Your task to perform on an android device: star an email in the gmail app Image 0: 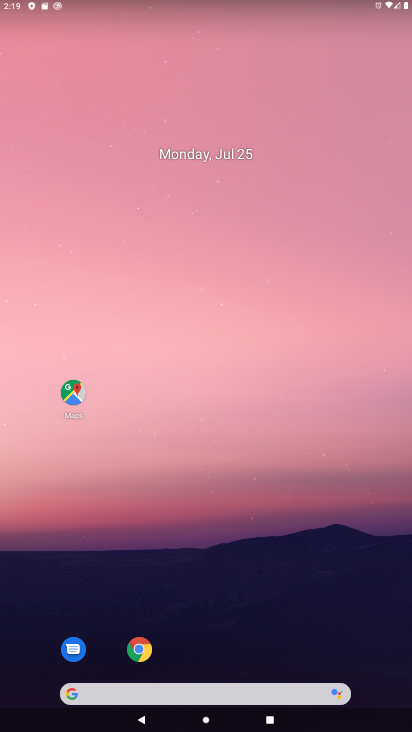
Step 0: drag from (386, 667) to (329, 239)
Your task to perform on an android device: star an email in the gmail app Image 1: 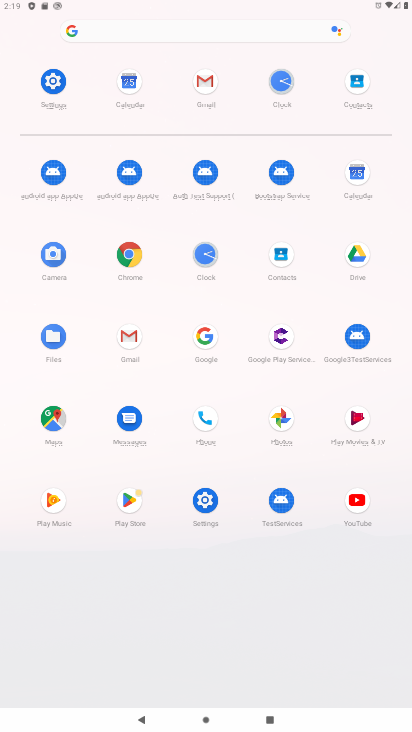
Step 1: click (129, 333)
Your task to perform on an android device: star an email in the gmail app Image 2: 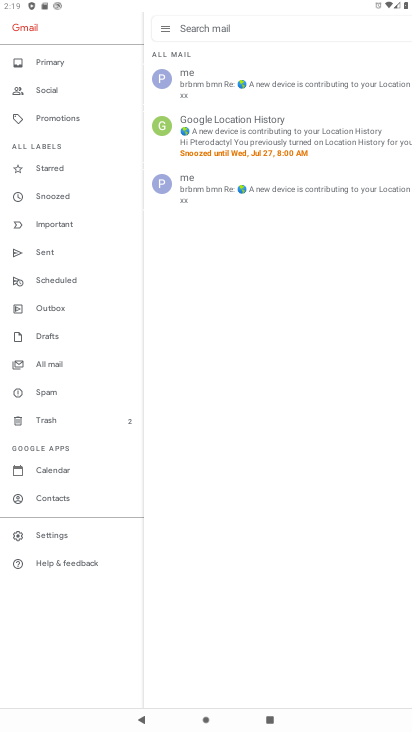
Step 2: click (315, 82)
Your task to perform on an android device: star an email in the gmail app Image 3: 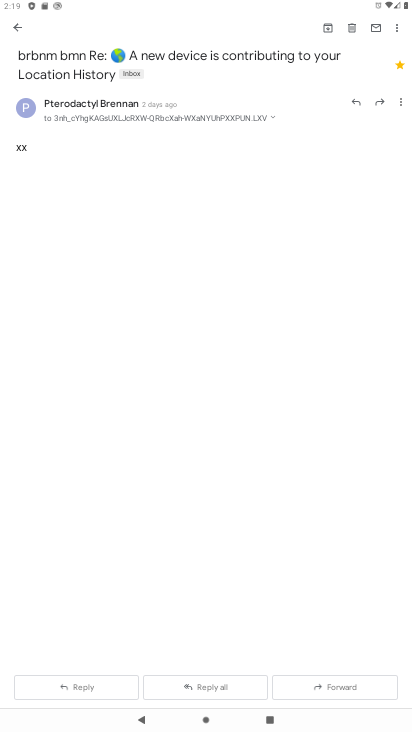
Step 3: task complete